Your task to perform on an android device: Go to network settings Image 0: 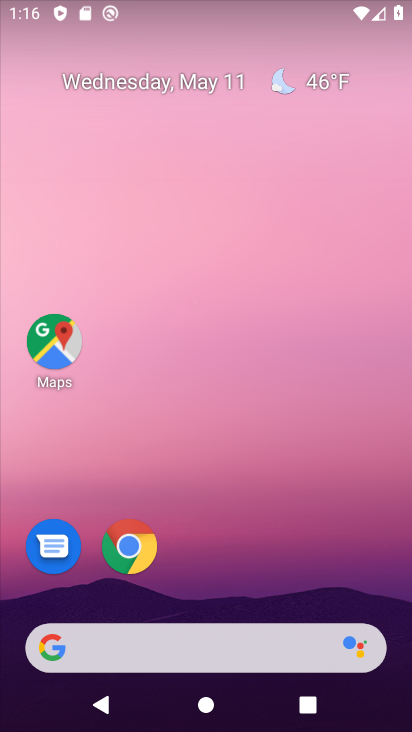
Step 0: drag from (196, 602) to (193, 271)
Your task to perform on an android device: Go to network settings Image 1: 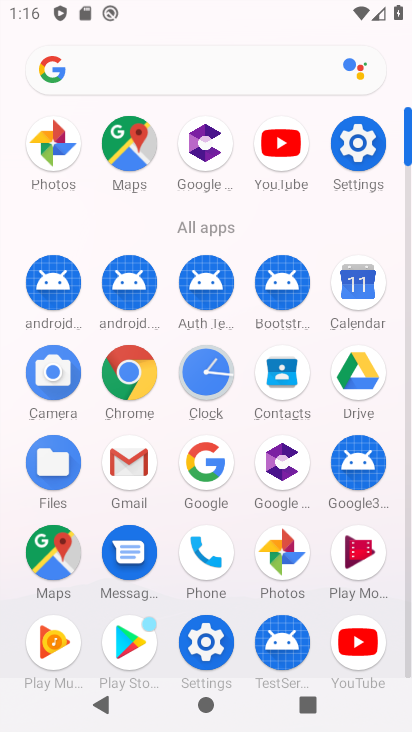
Step 1: click (205, 639)
Your task to perform on an android device: Go to network settings Image 2: 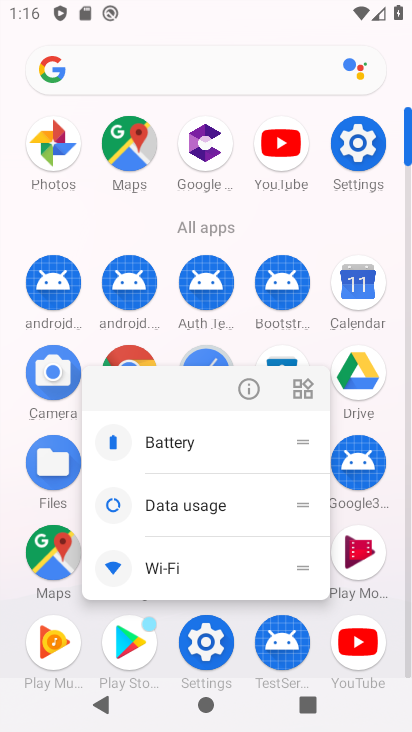
Step 2: click (245, 383)
Your task to perform on an android device: Go to network settings Image 3: 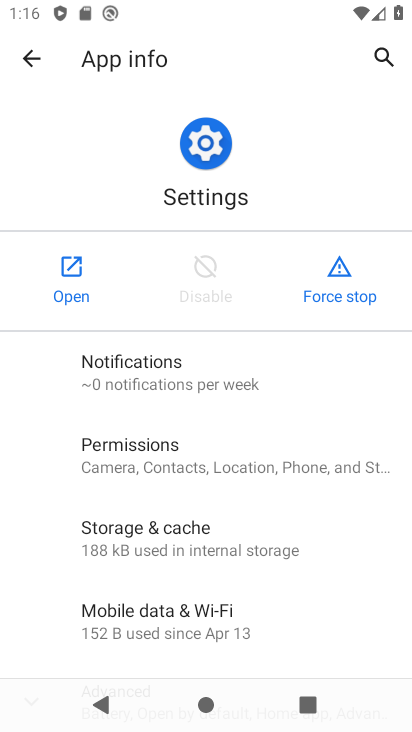
Step 3: click (69, 282)
Your task to perform on an android device: Go to network settings Image 4: 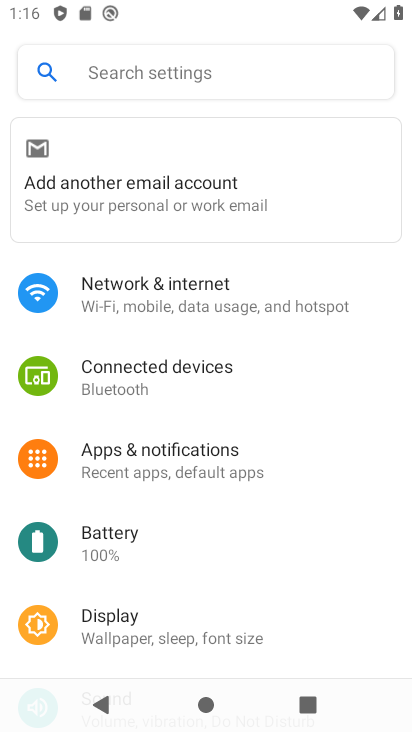
Step 4: drag from (247, 623) to (302, 262)
Your task to perform on an android device: Go to network settings Image 5: 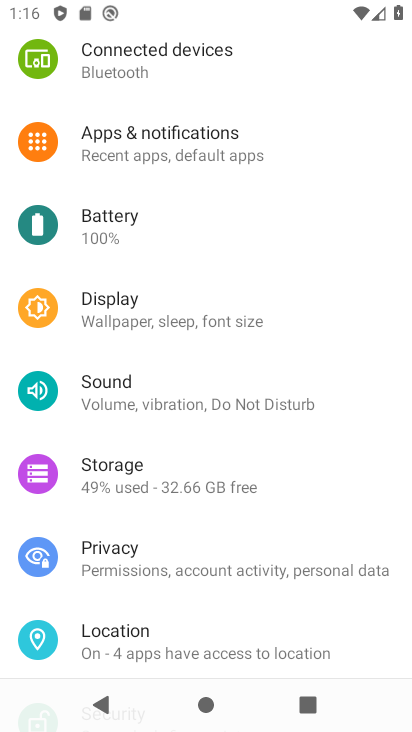
Step 5: drag from (235, 219) to (330, 593)
Your task to perform on an android device: Go to network settings Image 6: 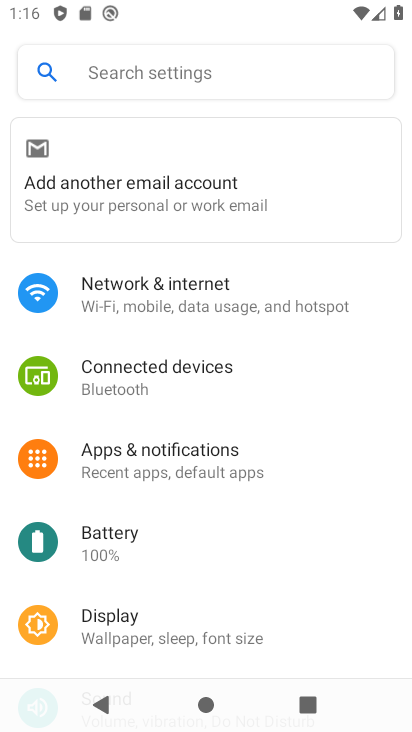
Step 6: click (199, 300)
Your task to perform on an android device: Go to network settings Image 7: 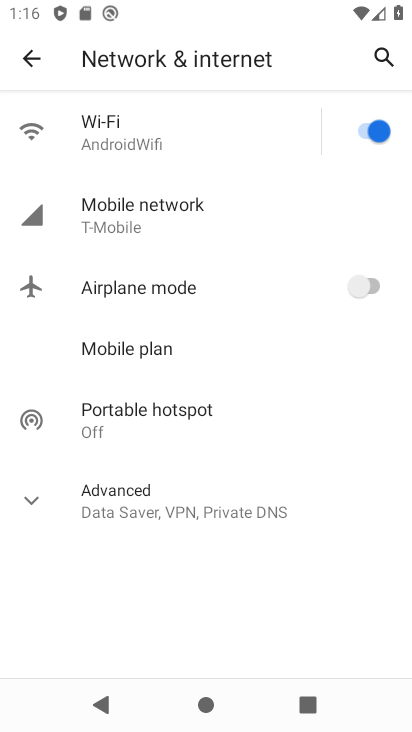
Step 7: click (215, 226)
Your task to perform on an android device: Go to network settings Image 8: 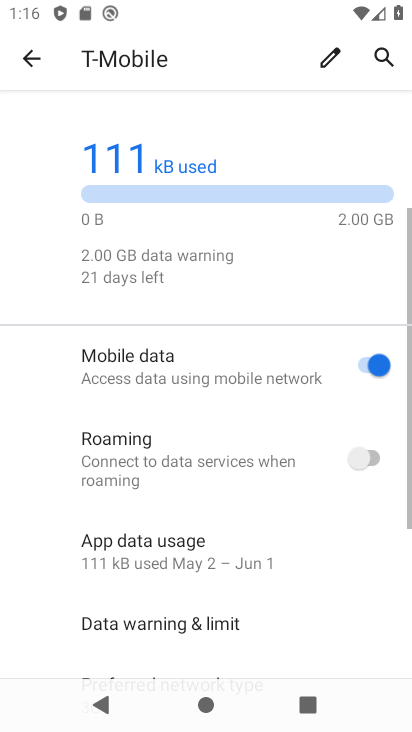
Step 8: task complete